Your task to perform on an android device: Open Yahoo.com Image 0: 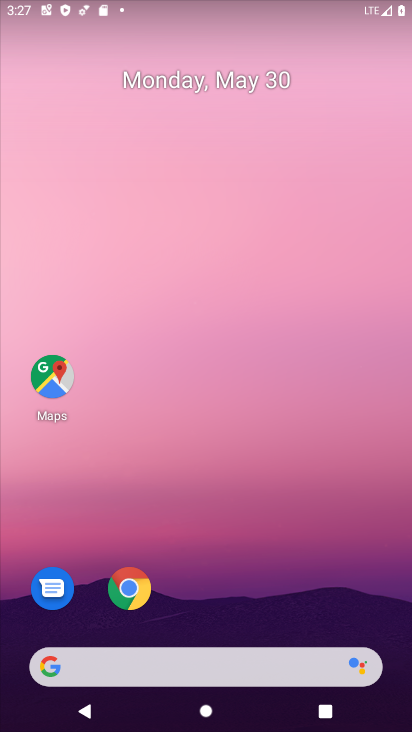
Step 0: drag from (257, 588) to (250, 38)
Your task to perform on an android device: Open Yahoo.com Image 1: 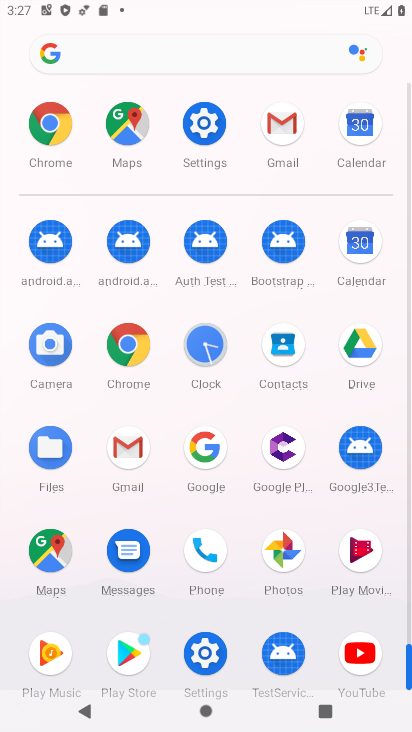
Step 1: drag from (0, 514) to (0, 551)
Your task to perform on an android device: Open Yahoo.com Image 2: 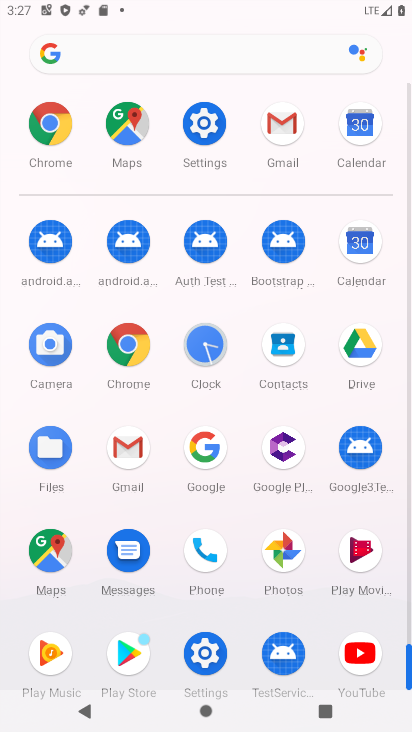
Step 2: drag from (12, 556) to (11, 279)
Your task to perform on an android device: Open Yahoo.com Image 3: 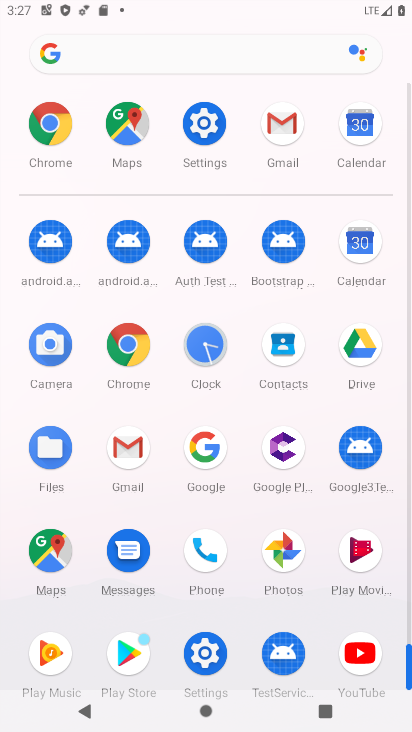
Step 3: click (128, 340)
Your task to perform on an android device: Open Yahoo.com Image 4: 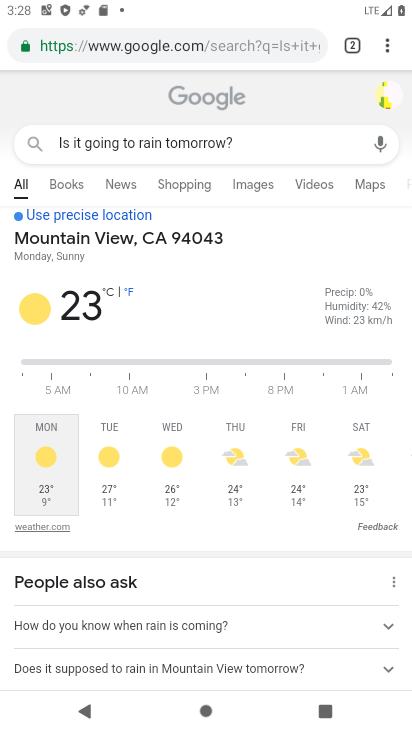
Step 4: click (164, 51)
Your task to perform on an android device: Open Yahoo.com Image 5: 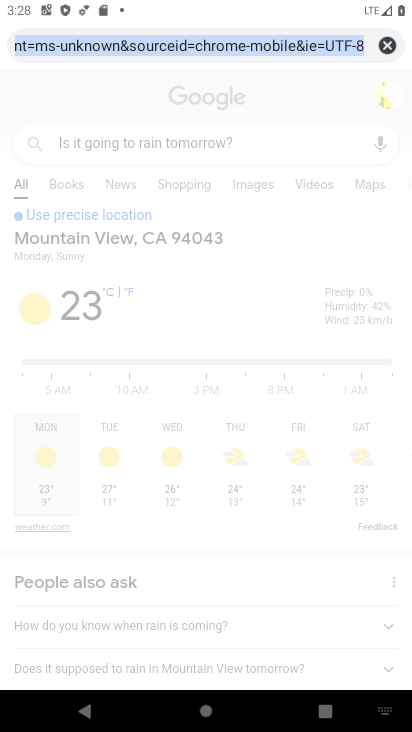
Step 5: click (388, 43)
Your task to perform on an android device: Open Yahoo.com Image 6: 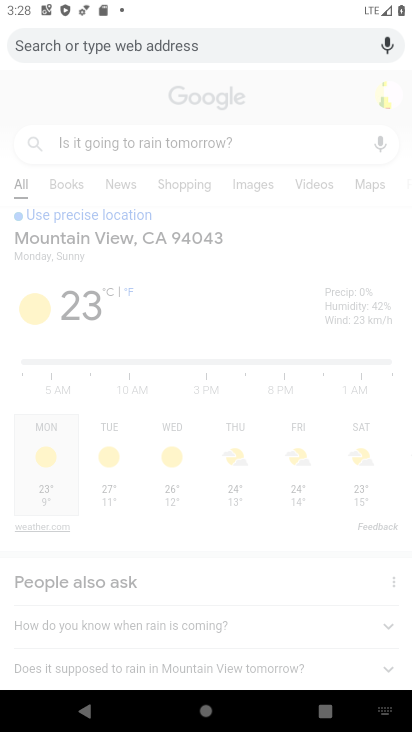
Step 6: type "Yahoo.com"
Your task to perform on an android device: Open Yahoo.com Image 7: 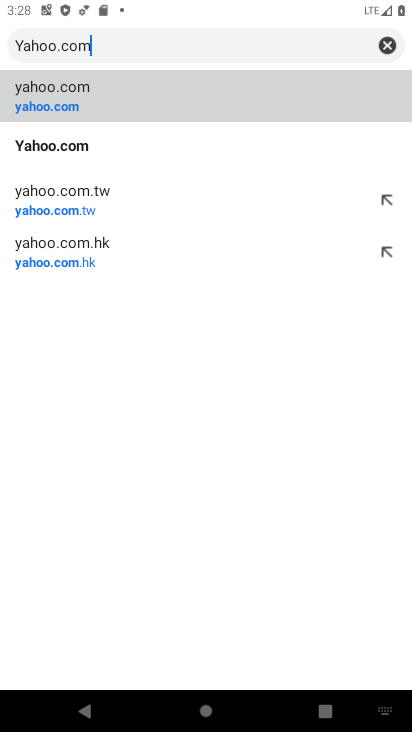
Step 7: click (74, 87)
Your task to perform on an android device: Open Yahoo.com Image 8: 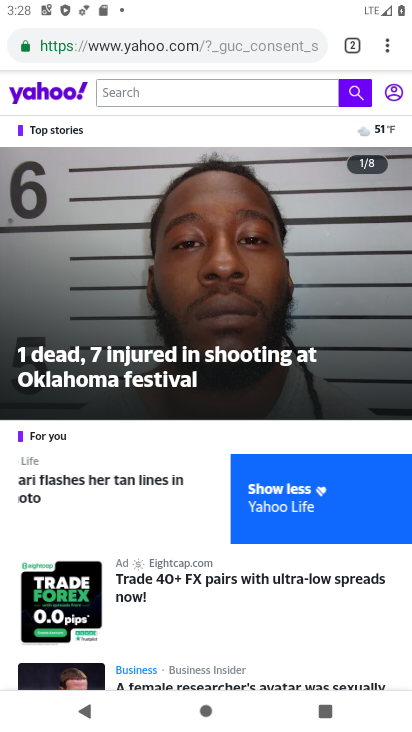
Step 8: task complete